Your task to perform on an android device: clear all cookies in the chrome app Image 0: 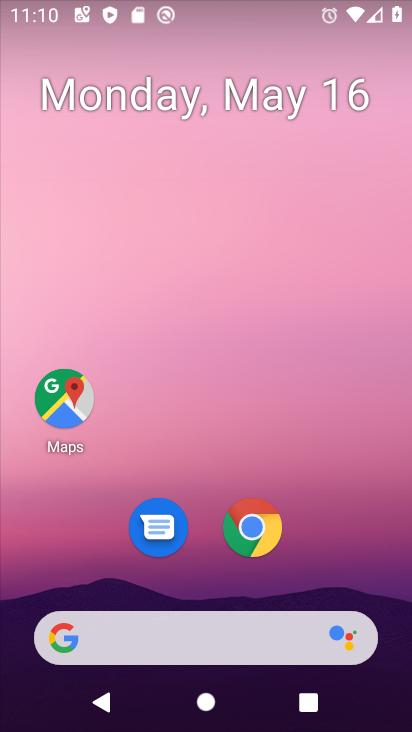
Step 0: click (256, 535)
Your task to perform on an android device: clear all cookies in the chrome app Image 1: 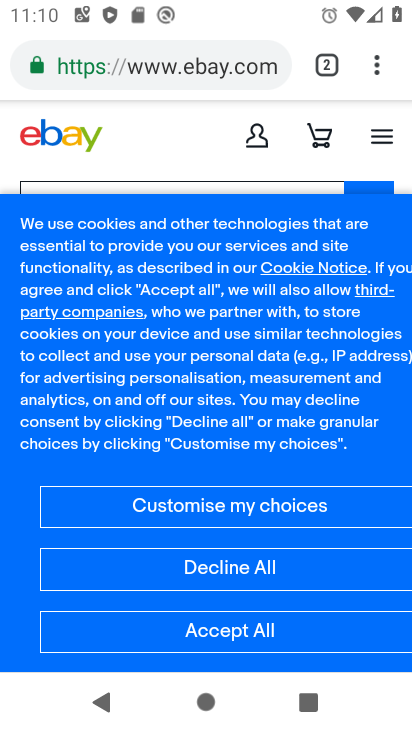
Step 1: click (378, 64)
Your task to perform on an android device: clear all cookies in the chrome app Image 2: 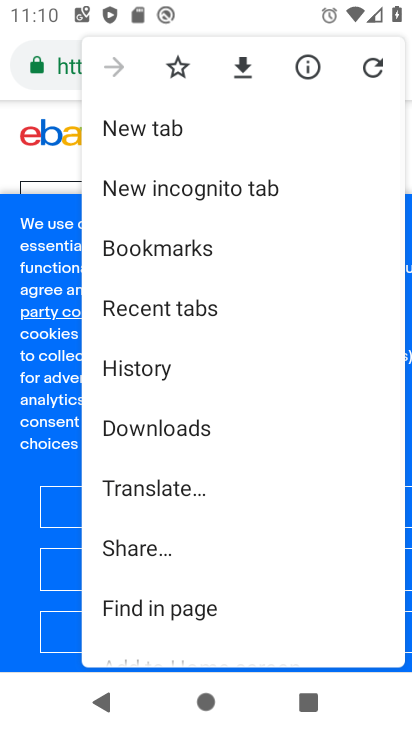
Step 2: drag from (204, 529) to (225, 264)
Your task to perform on an android device: clear all cookies in the chrome app Image 3: 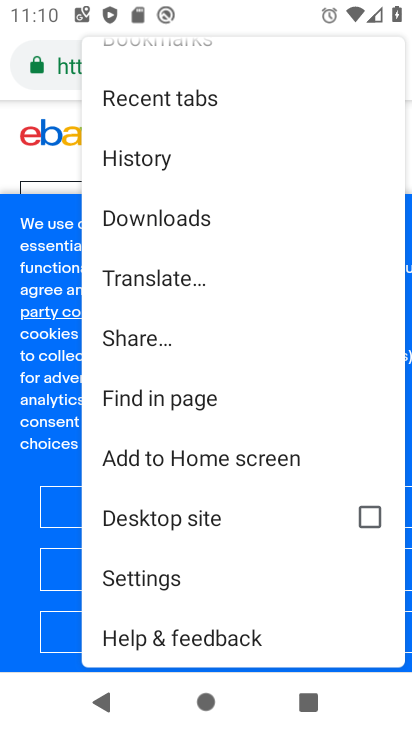
Step 3: click (154, 579)
Your task to perform on an android device: clear all cookies in the chrome app Image 4: 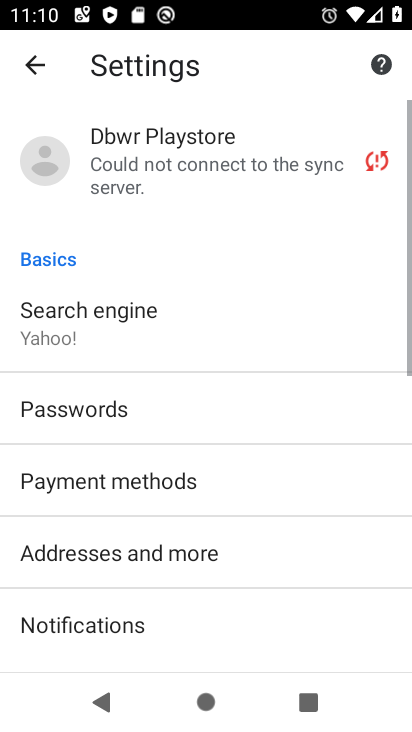
Step 4: drag from (156, 574) to (165, 315)
Your task to perform on an android device: clear all cookies in the chrome app Image 5: 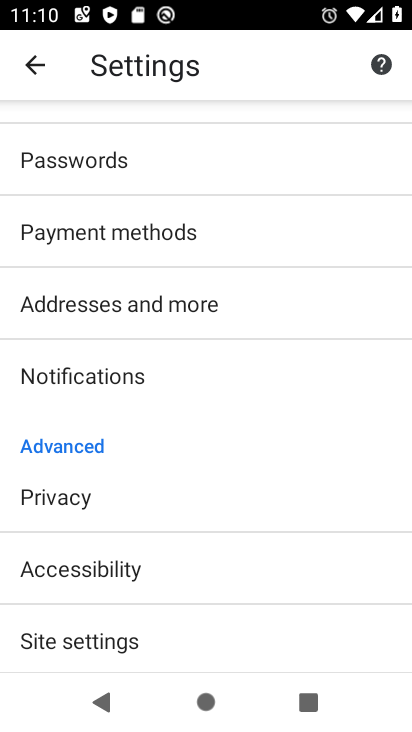
Step 5: click (85, 499)
Your task to perform on an android device: clear all cookies in the chrome app Image 6: 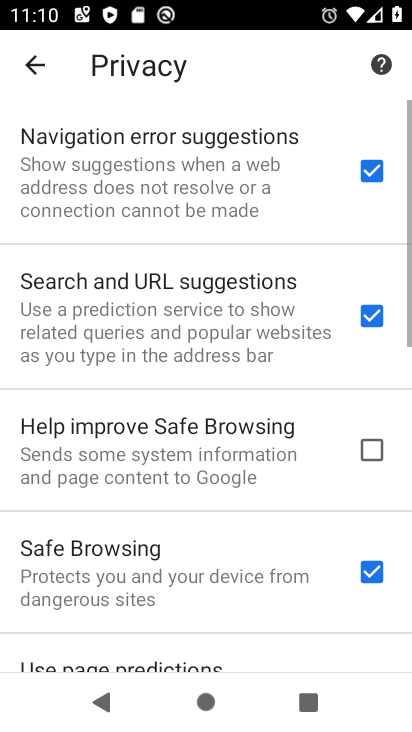
Step 6: drag from (179, 598) to (173, 117)
Your task to perform on an android device: clear all cookies in the chrome app Image 7: 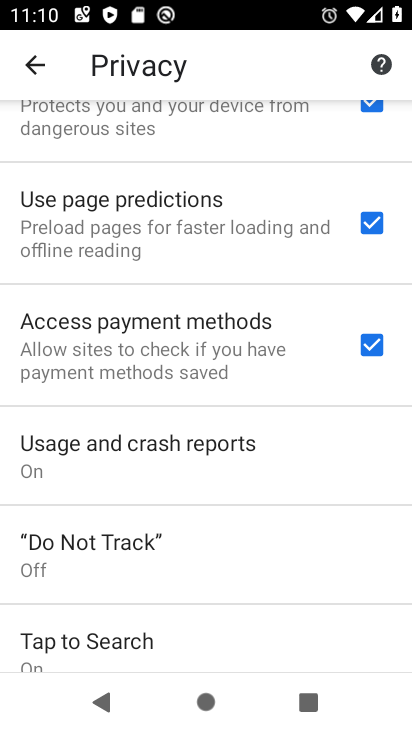
Step 7: drag from (171, 528) to (166, 156)
Your task to perform on an android device: clear all cookies in the chrome app Image 8: 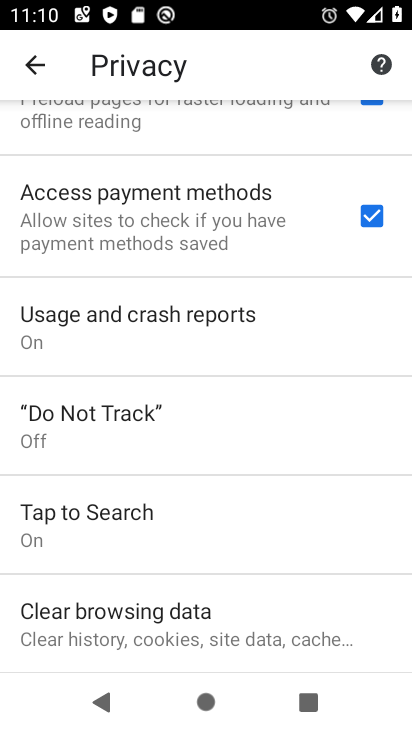
Step 8: click (155, 613)
Your task to perform on an android device: clear all cookies in the chrome app Image 9: 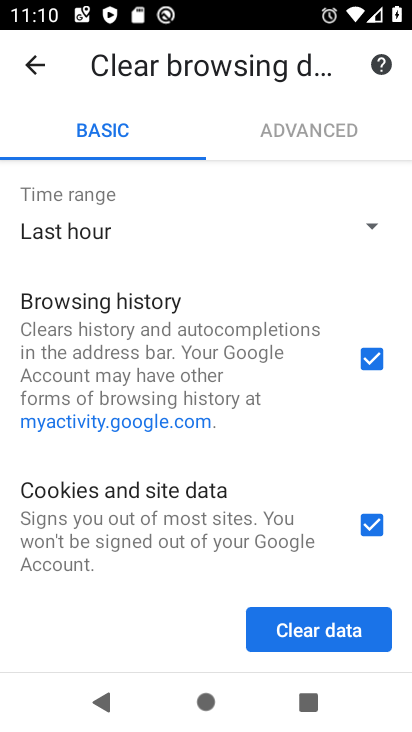
Step 9: click (380, 355)
Your task to perform on an android device: clear all cookies in the chrome app Image 10: 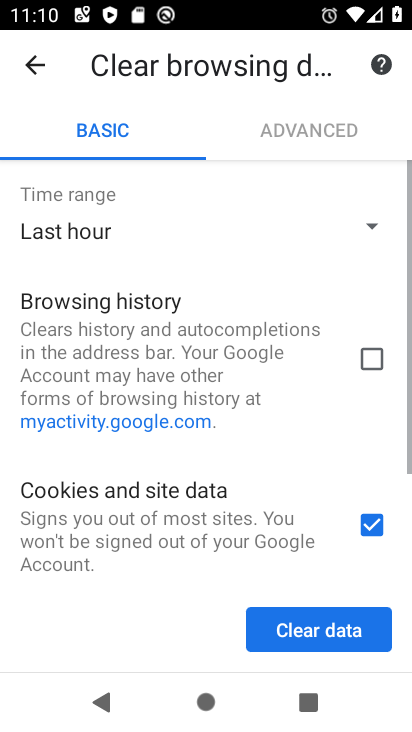
Step 10: drag from (192, 470) to (153, 144)
Your task to perform on an android device: clear all cookies in the chrome app Image 11: 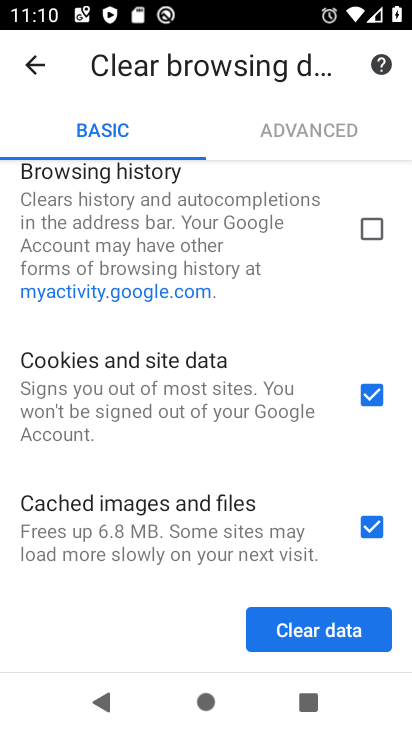
Step 11: click (368, 521)
Your task to perform on an android device: clear all cookies in the chrome app Image 12: 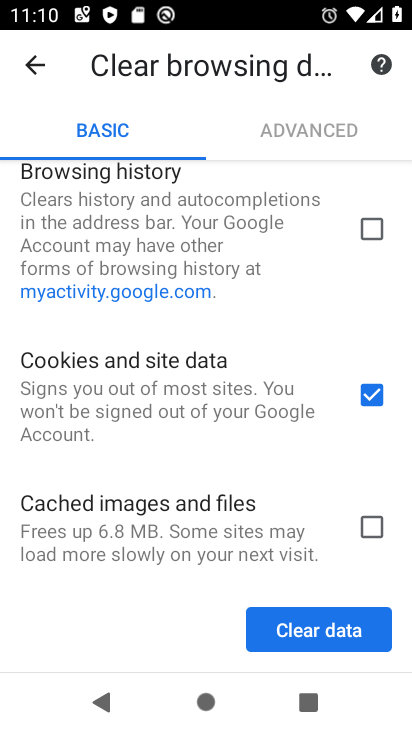
Step 12: click (300, 641)
Your task to perform on an android device: clear all cookies in the chrome app Image 13: 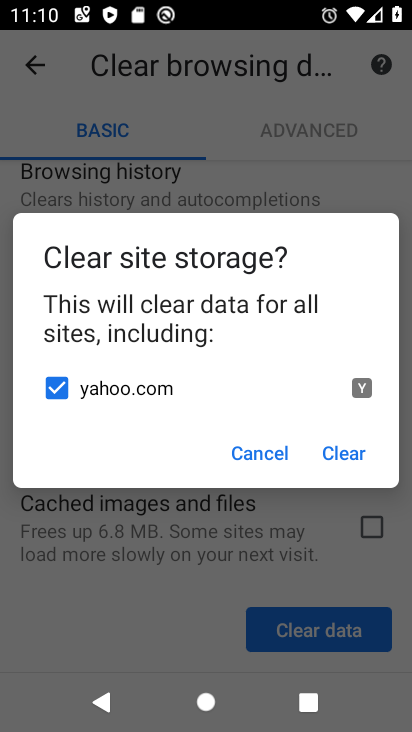
Step 13: click (338, 455)
Your task to perform on an android device: clear all cookies in the chrome app Image 14: 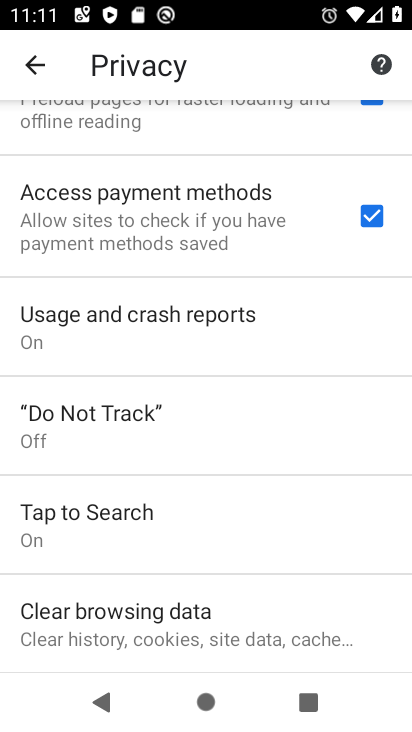
Step 14: task complete